Your task to perform on an android device: Go to Google Image 0: 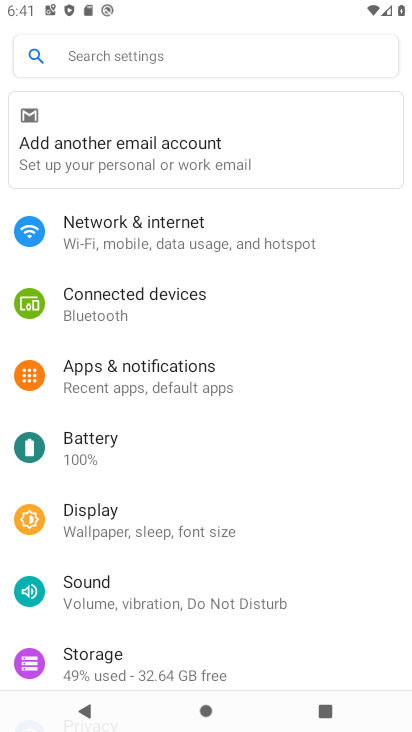
Step 0: press home button
Your task to perform on an android device: Go to Google Image 1: 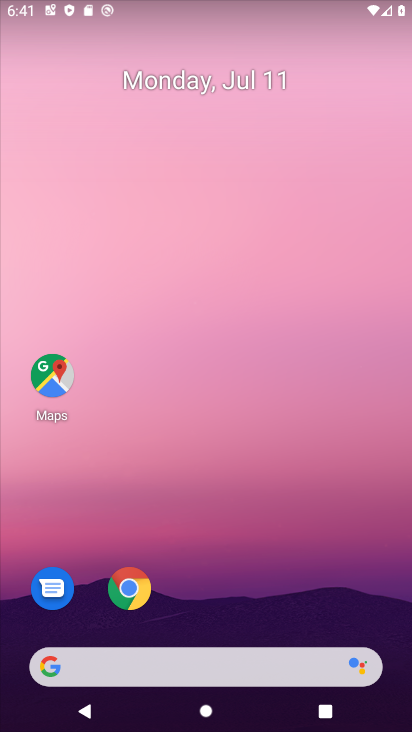
Step 1: drag from (328, 605) to (239, 195)
Your task to perform on an android device: Go to Google Image 2: 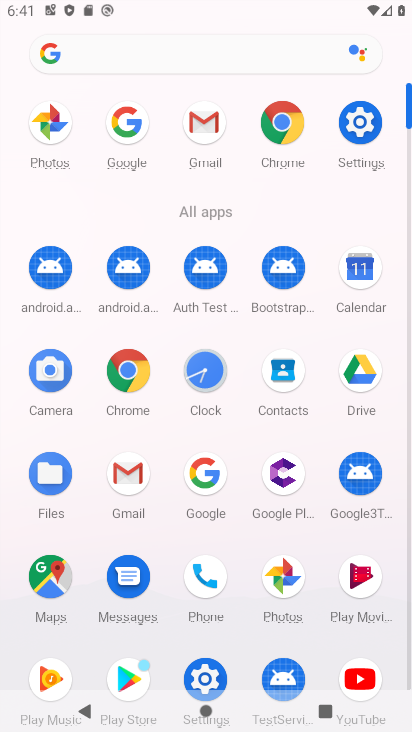
Step 2: click (198, 465)
Your task to perform on an android device: Go to Google Image 3: 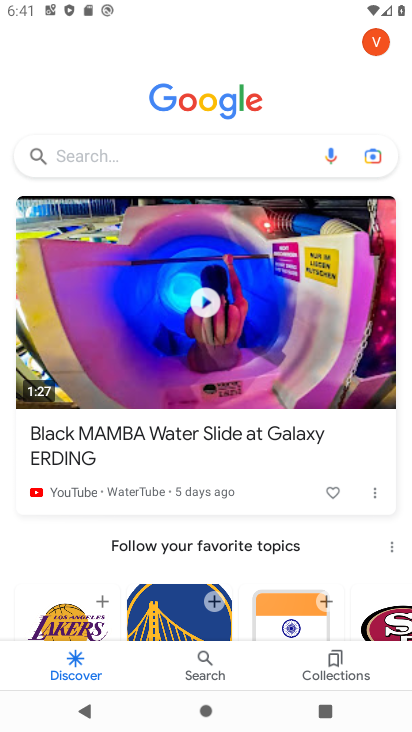
Step 3: task complete